Your task to perform on an android device: toggle data saver in the chrome app Image 0: 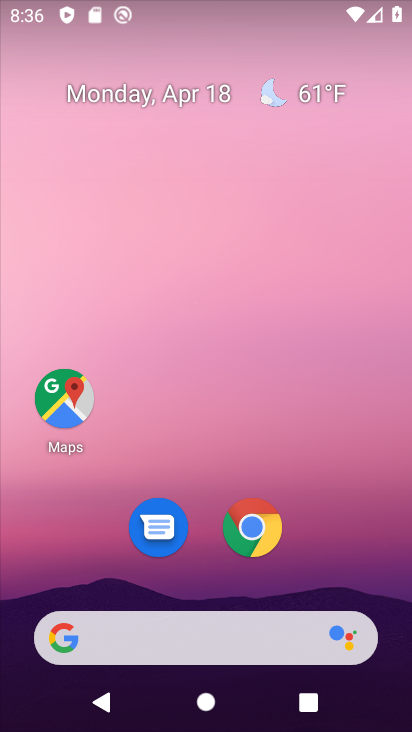
Step 0: click (261, 530)
Your task to perform on an android device: toggle data saver in the chrome app Image 1: 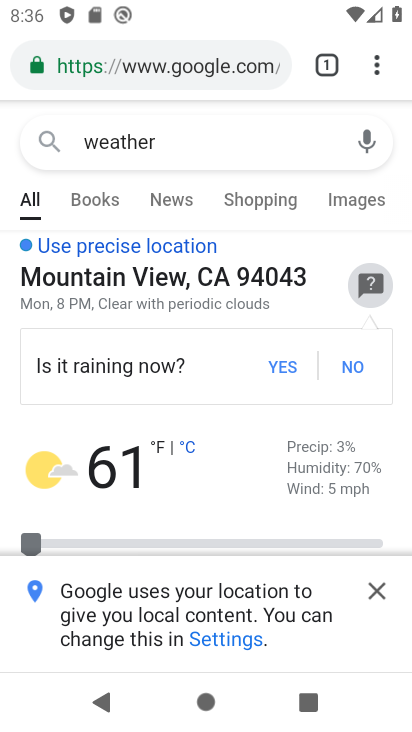
Step 1: click (378, 53)
Your task to perform on an android device: toggle data saver in the chrome app Image 2: 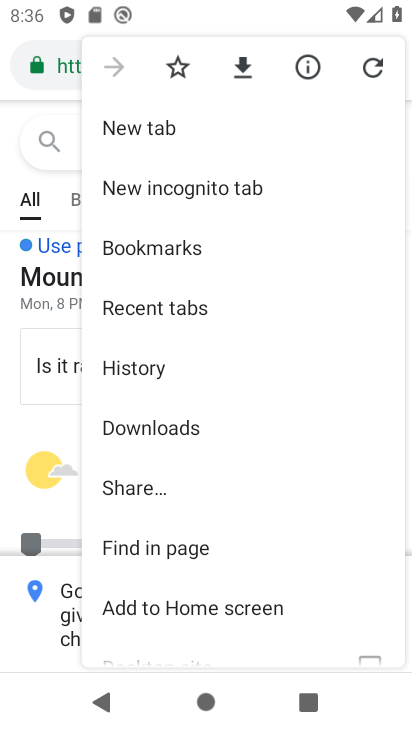
Step 2: drag from (164, 597) to (251, 112)
Your task to perform on an android device: toggle data saver in the chrome app Image 3: 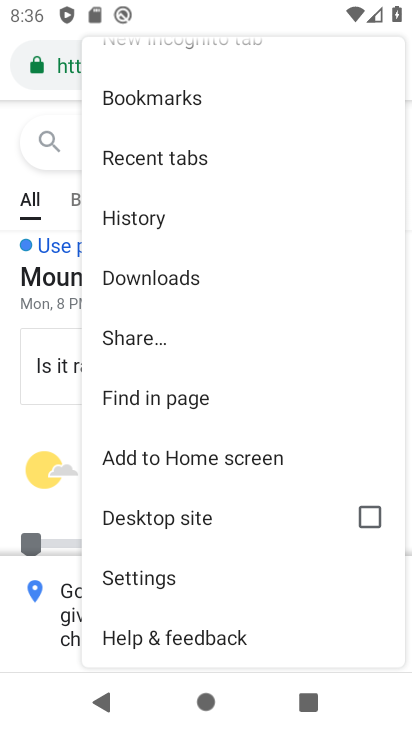
Step 3: click (183, 560)
Your task to perform on an android device: toggle data saver in the chrome app Image 4: 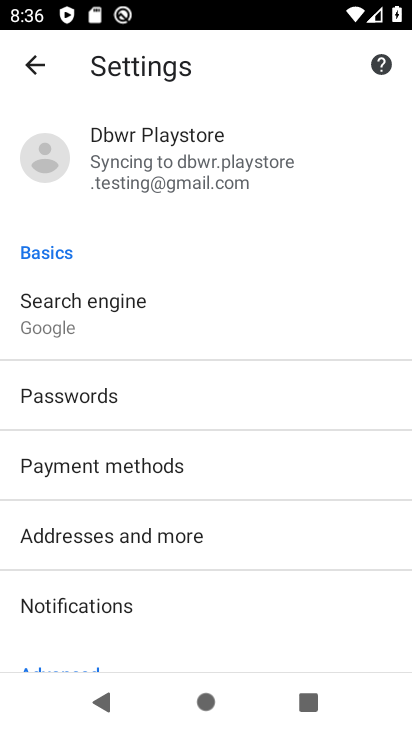
Step 4: drag from (176, 625) to (232, 231)
Your task to perform on an android device: toggle data saver in the chrome app Image 5: 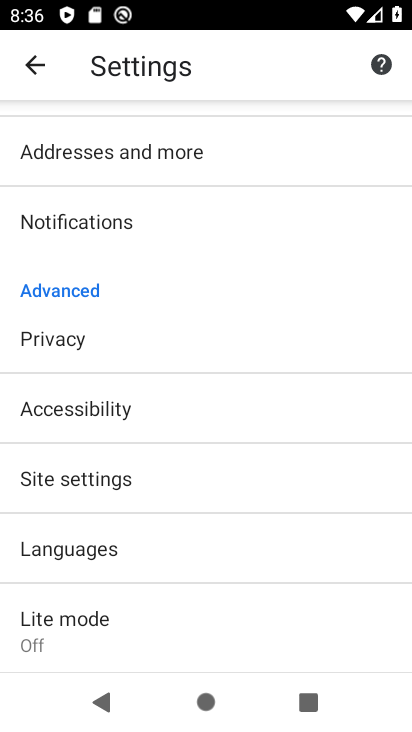
Step 5: click (38, 616)
Your task to perform on an android device: toggle data saver in the chrome app Image 6: 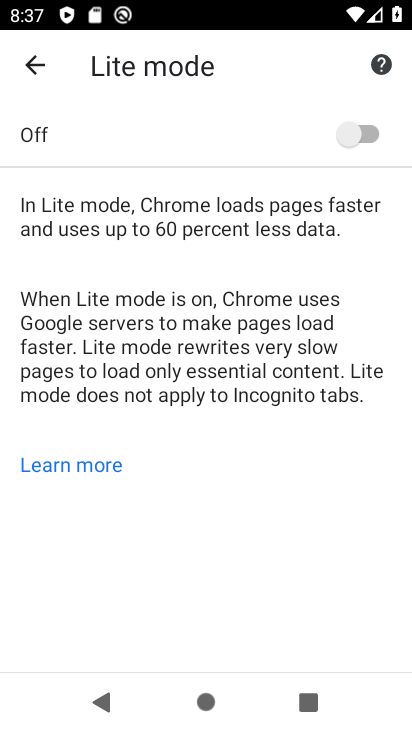
Step 6: click (376, 128)
Your task to perform on an android device: toggle data saver in the chrome app Image 7: 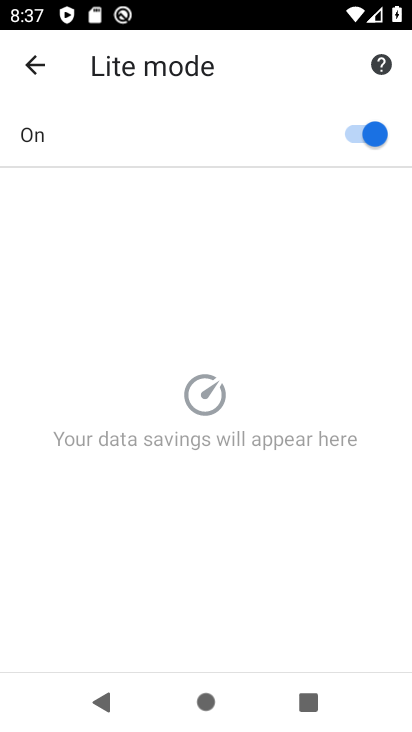
Step 7: click (376, 128)
Your task to perform on an android device: toggle data saver in the chrome app Image 8: 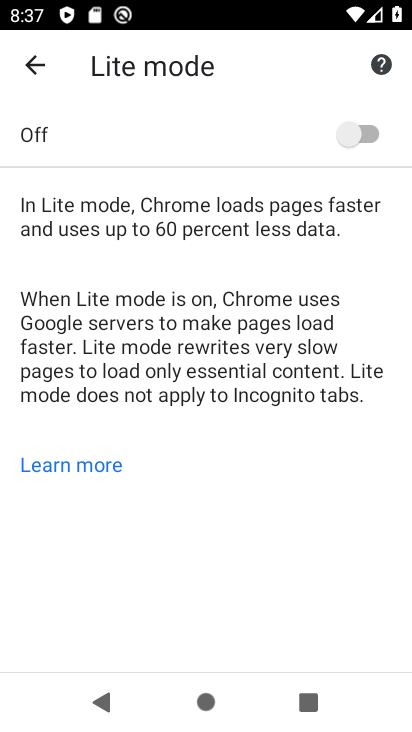
Step 8: click (376, 128)
Your task to perform on an android device: toggle data saver in the chrome app Image 9: 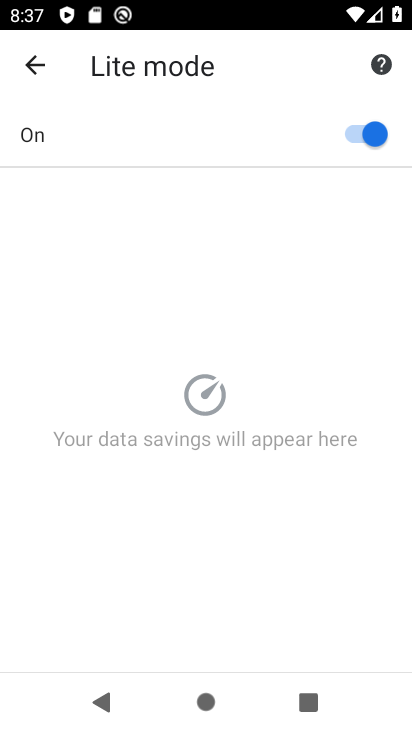
Step 9: click (376, 128)
Your task to perform on an android device: toggle data saver in the chrome app Image 10: 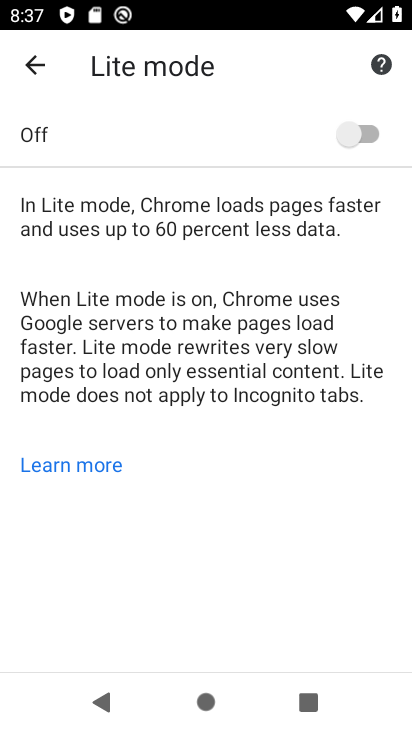
Step 10: task complete